Your task to perform on an android device: Open Youtube and go to "Your channel" Image 0: 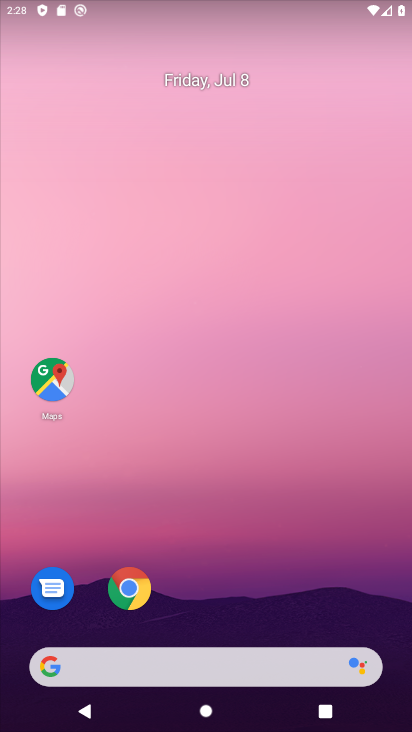
Step 0: press home button
Your task to perform on an android device: Open Youtube and go to "Your channel" Image 1: 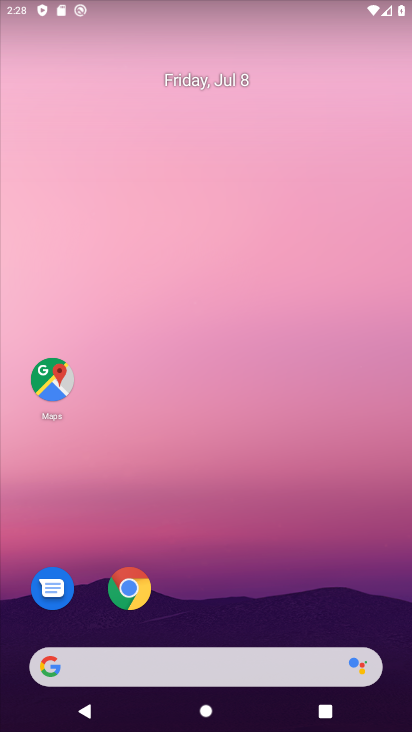
Step 1: drag from (218, 539) to (187, 8)
Your task to perform on an android device: Open Youtube and go to "Your channel" Image 2: 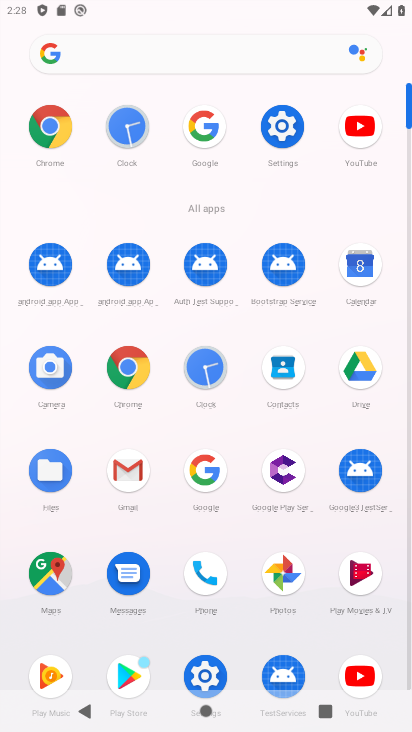
Step 2: click (356, 113)
Your task to perform on an android device: Open Youtube and go to "Your channel" Image 3: 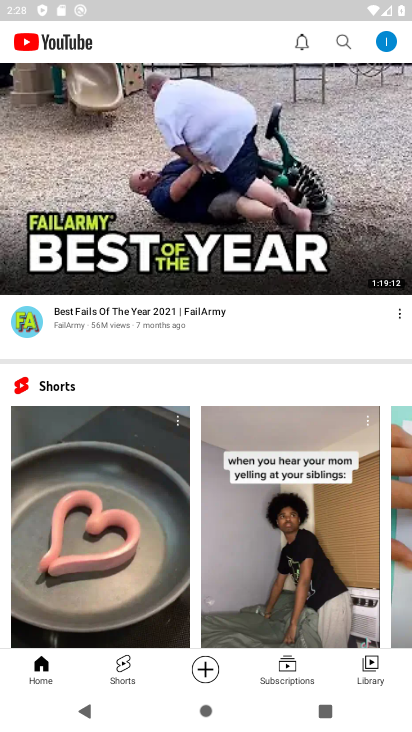
Step 3: click (380, 42)
Your task to perform on an android device: Open Youtube and go to "Your channel" Image 4: 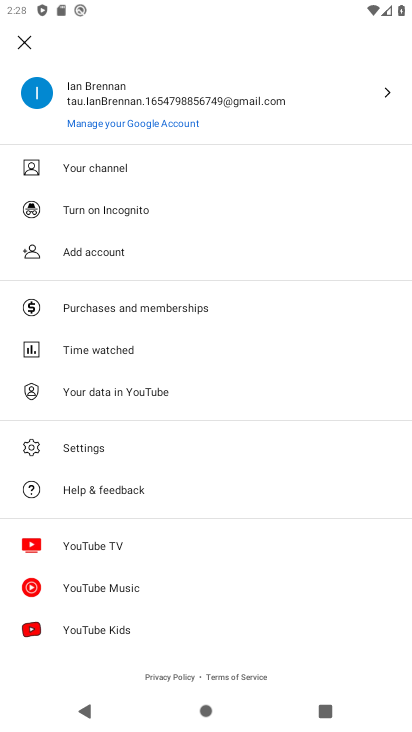
Step 4: task complete